Your task to perform on an android device: Open ESPN.com Image 0: 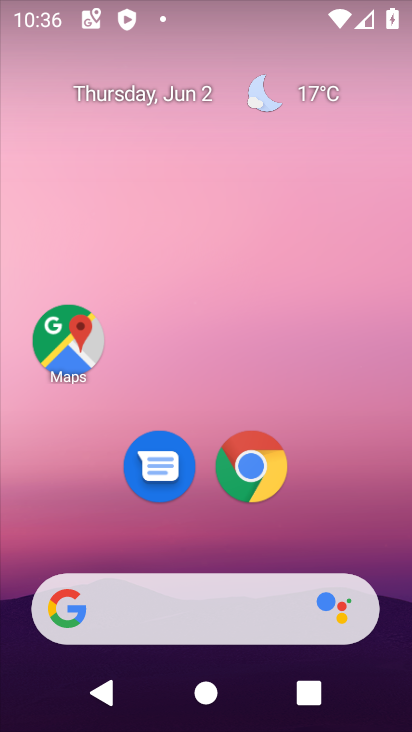
Step 0: click (265, 463)
Your task to perform on an android device: Open ESPN.com Image 1: 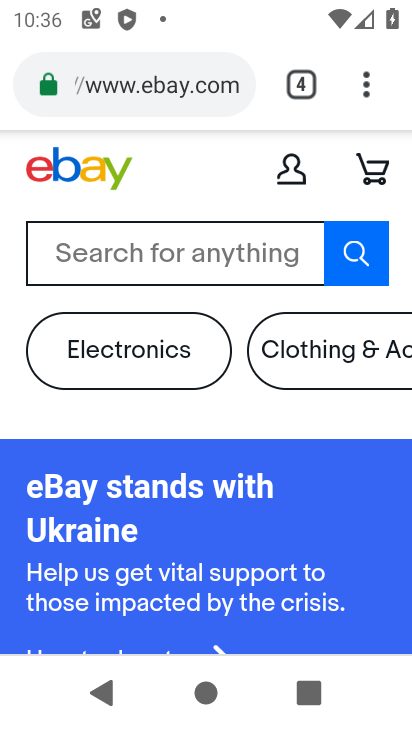
Step 1: click (364, 72)
Your task to perform on an android device: Open ESPN.com Image 2: 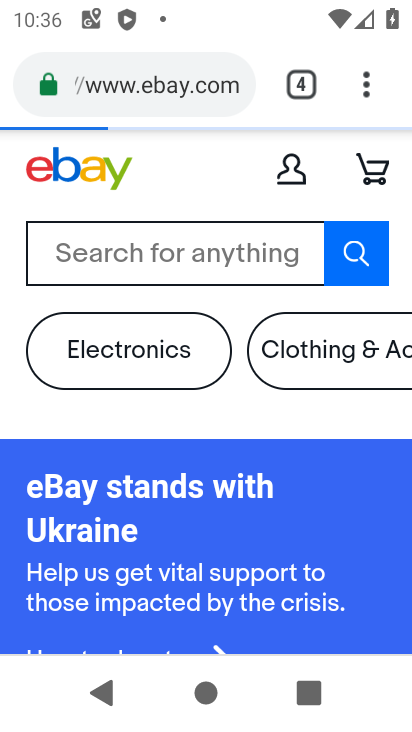
Step 2: click (69, 165)
Your task to perform on an android device: Open ESPN.com Image 3: 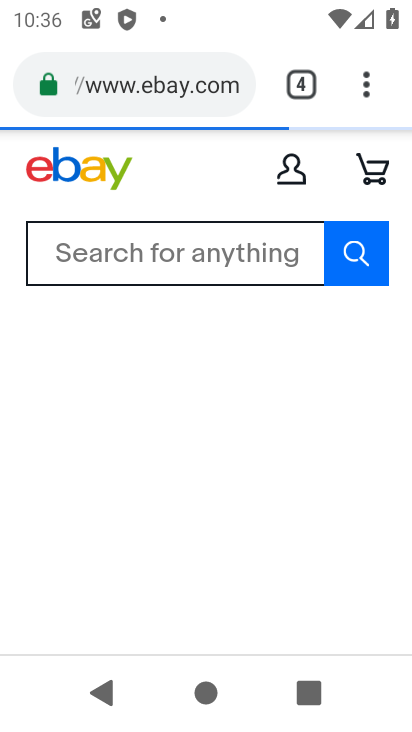
Step 3: click (379, 86)
Your task to perform on an android device: Open ESPN.com Image 4: 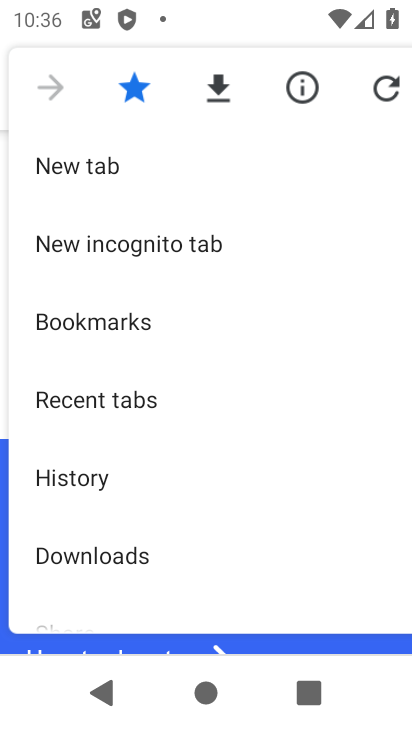
Step 4: click (87, 148)
Your task to perform on an android device: Open ESPN.com Image 5: 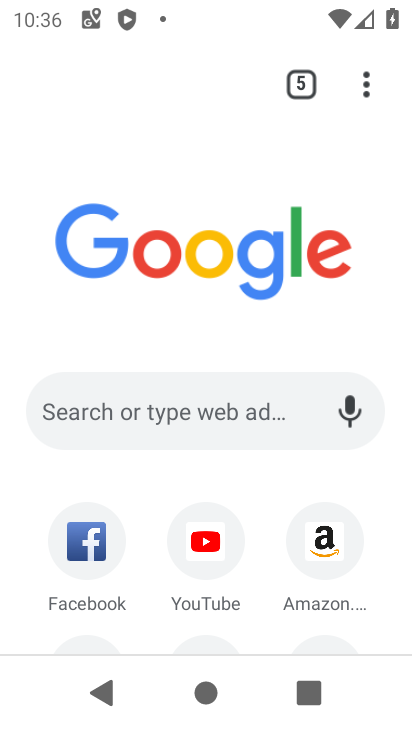
Step 5: drag from (99, 537) to (130, 301)
Your task to perform on an android device: Open ESPN.com Image 6: 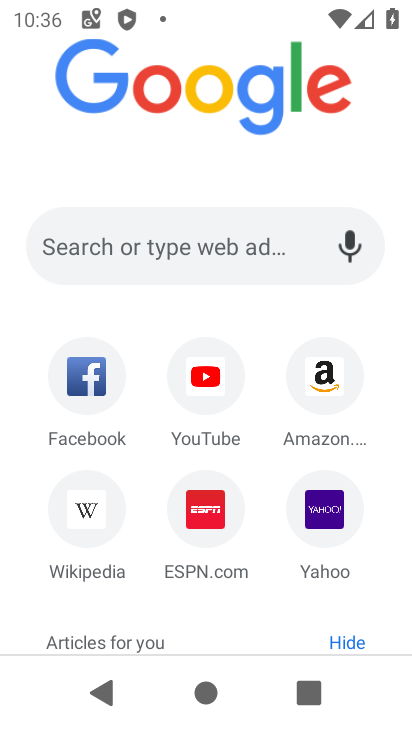
Step 6: click (177, 505)
Your task to perform on an android device: Open ESPN.com Image 7: 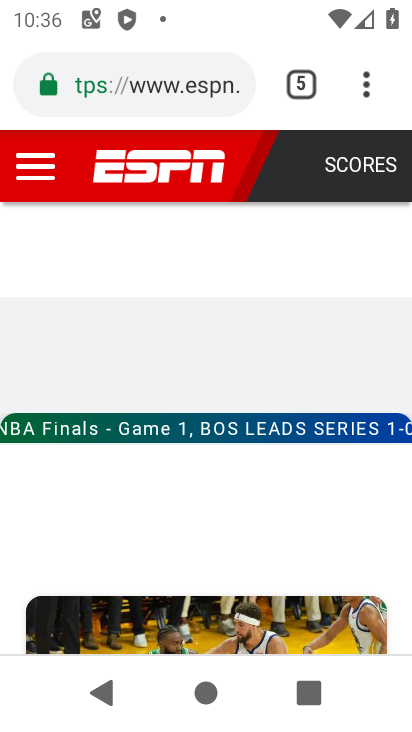
Step 7: task complete